Your task to perform on an android device: Open the calendar and show me this week's events? Image 0: 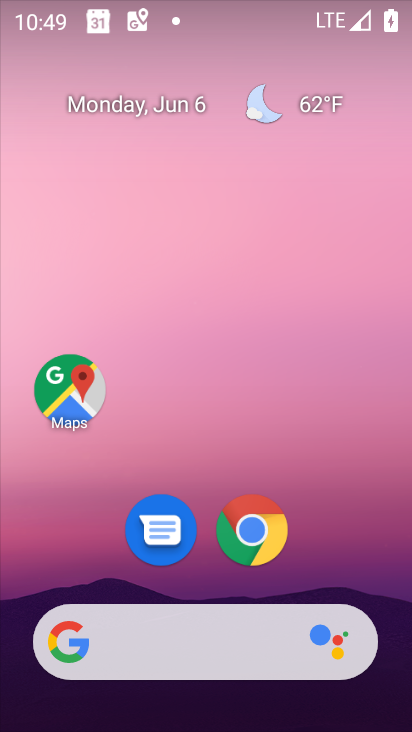
Step 0: drag from (318, 229) to (319, 57)
Your task to perform on an android device: Open the calendar and show me this week's events? Image 1: 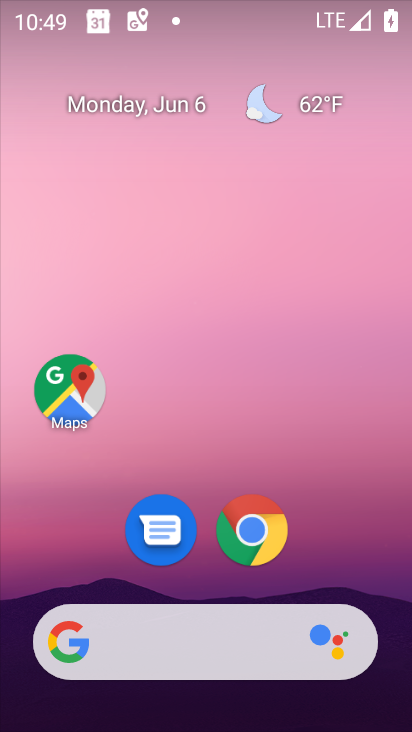
Step 1: drag from (320, 541) to (285, 3)
Your task to perform on an android device: Open the calendar and show me this week's events? Image 2: 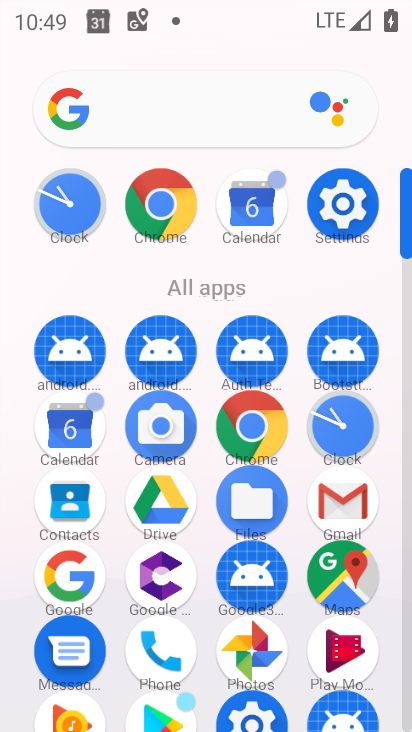
Step 2: click (75, 434)
Your task to perform on an android device: Open the calendar and show me this week's events? Image 3: 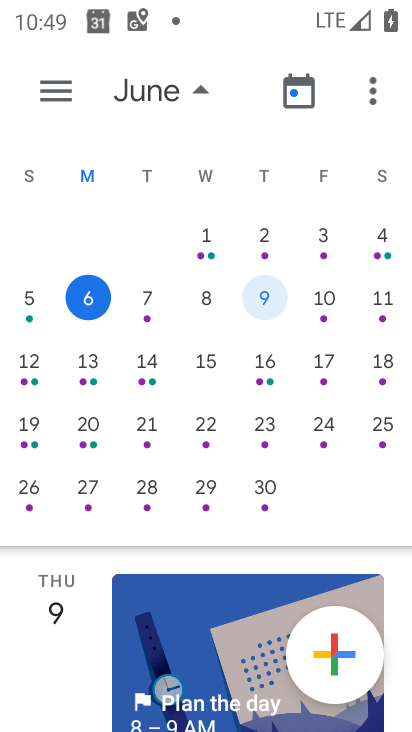
Step 3: task complete